Your task to perform on an android device: Open Google Chrome Image 0: 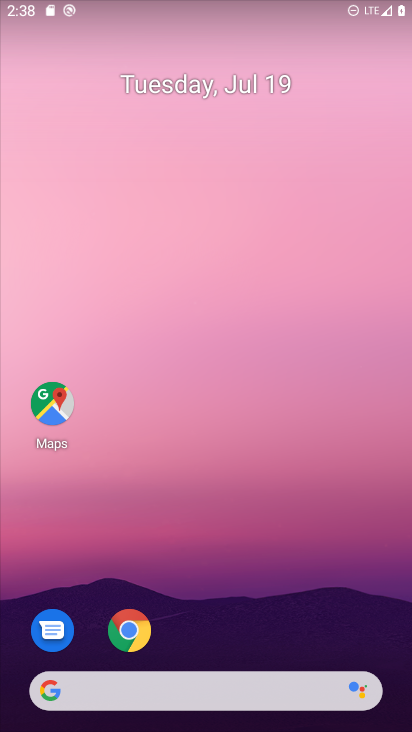
Step 0: click (128, 629)
Your task to perform on an android device: Open Google Chrome Image 1: 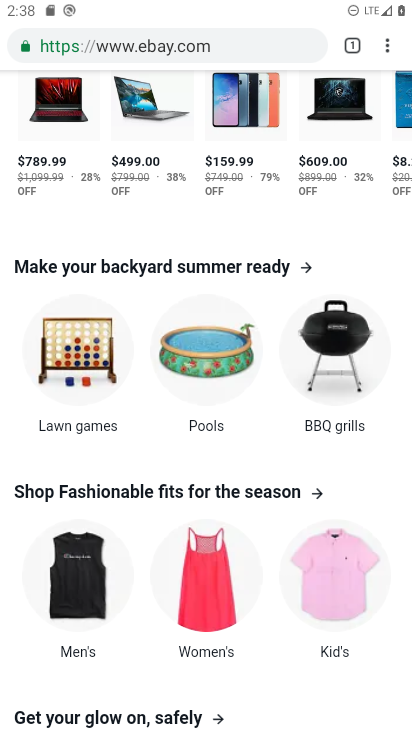
Step 1: task complete